Your task to perform on an android device: Open Google Chrome Image 0: 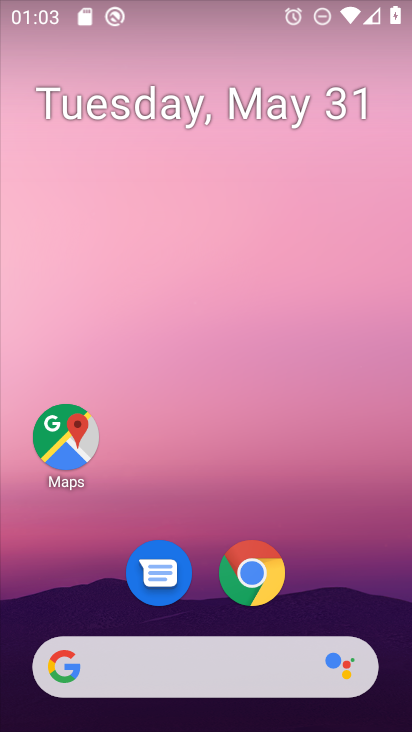
Step 0: click (267, 594)
Your task to perform on an android device: Open Google Chrome Image 1: 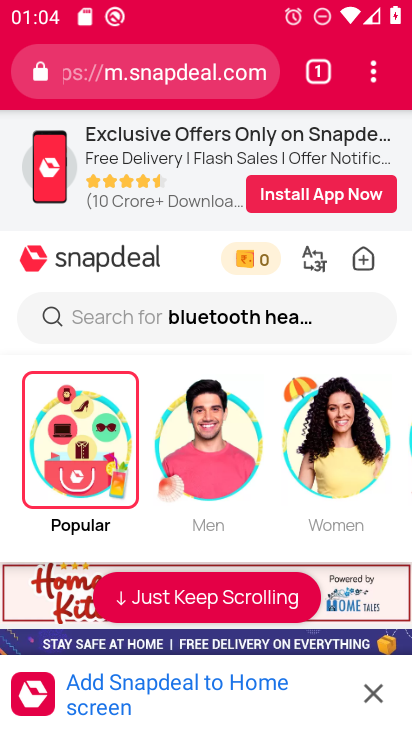
Step 1: task complete